Your task to perform on an android device: See recent photos Image 0: 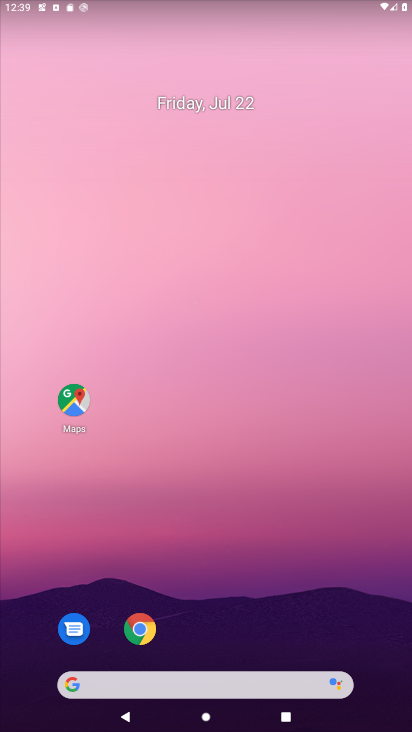
Step 0: drag from (224, 621) to (246, 83)
Your task to perform on an android device: See recent photos Image 1: 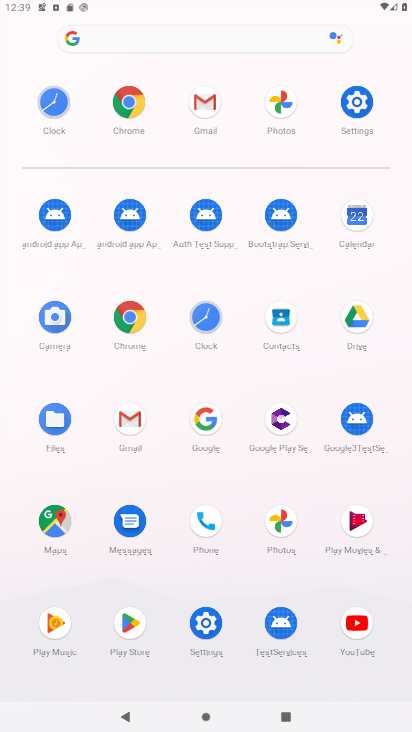
Step 1: click (262, 522)
Your task to perform on an android device: See recent photos Image 2: 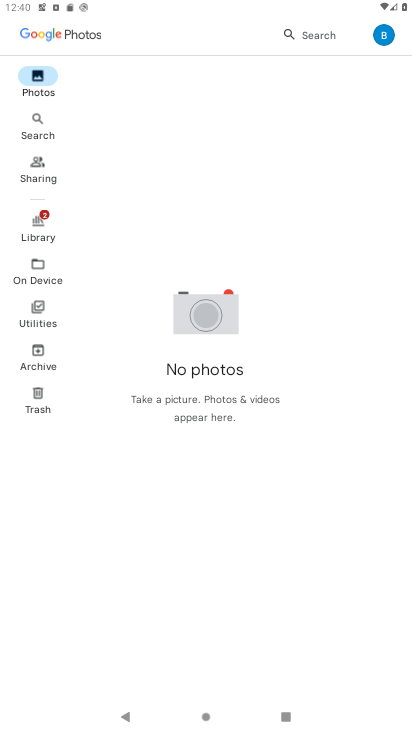
Step 2: task complete